Your task to perform on an android device: Go to Google maps Image 0: 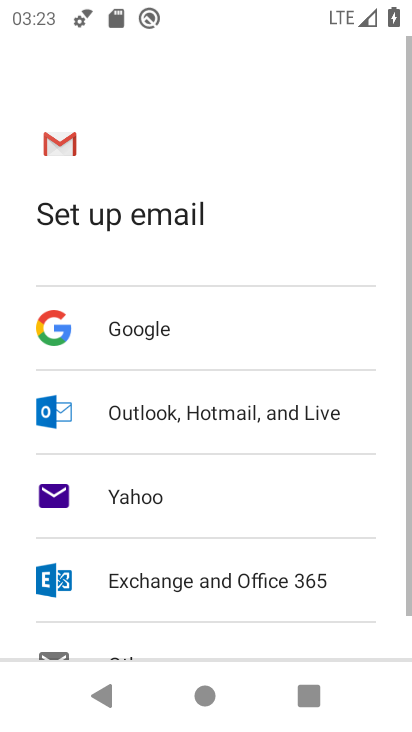
Step 0: press home button
Your task to perform on an android device: Go to Google maps Image 1: 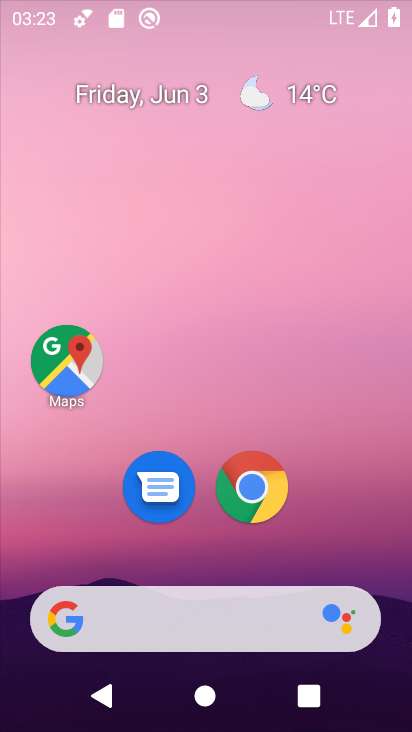
Step 1: click (66, 346)
Your task to perform on an android device: Go to Google maps Image 2: 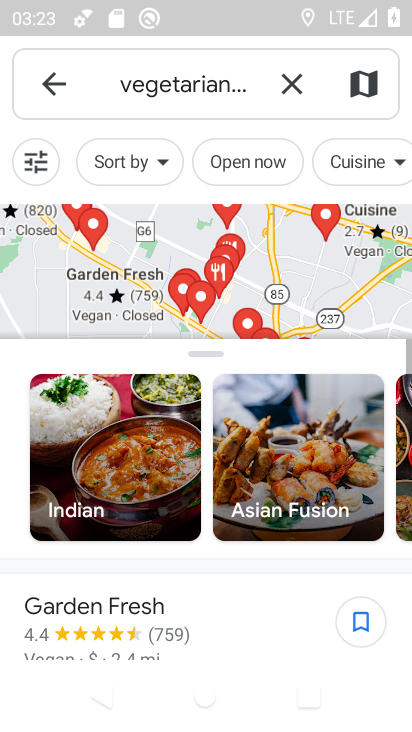
Step 2: task complete